Your task to perform on an android device: empty trash in the gmail app Image 0: 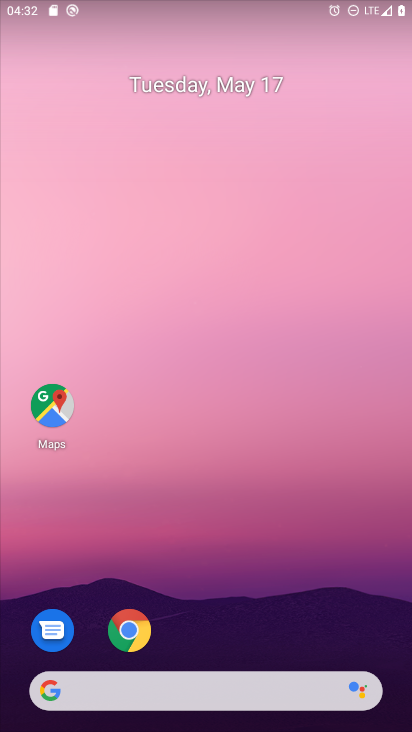
Step 0: drag from (219, 644) to (296, 116)
Your task to perform on an android device: empty trash in the gmail app Image 1: 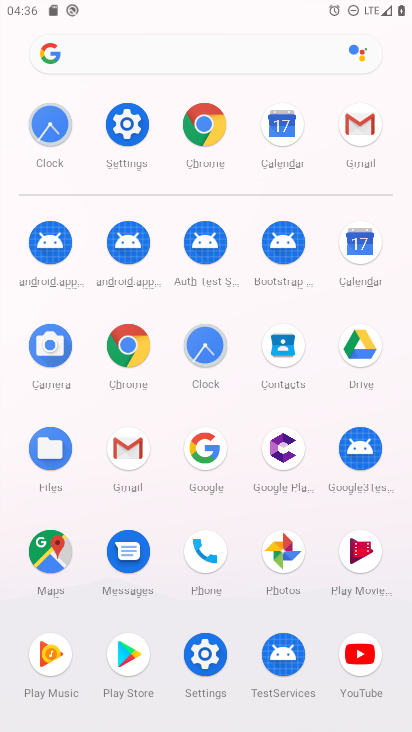
Step 1: click (134, 456)
Your task to perform on an android device: empty trash in the gmail app Image 2: 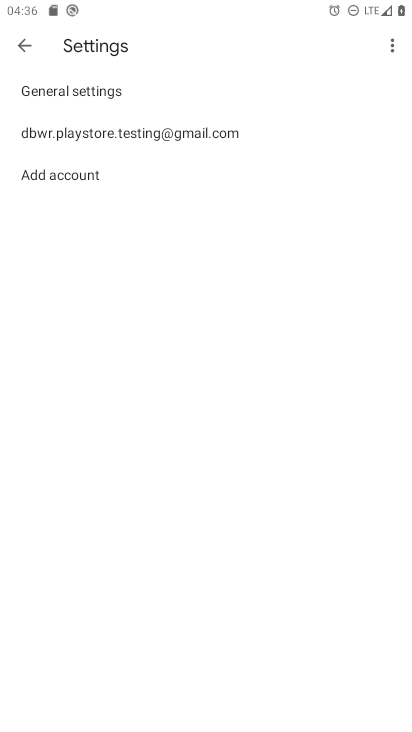
Step 2: click (22, 54)
Your task to perform on an android device: empty trash in the gmail app Image 3: 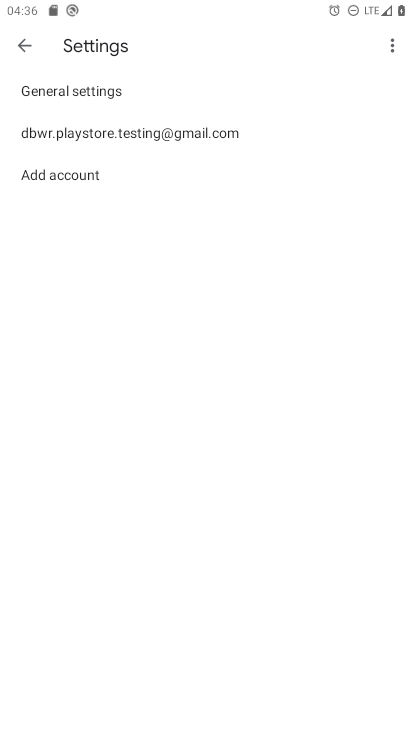
Step 3: click (21, 42)
Your task to perform on an android device: empty trash in the gmail app Image 4: 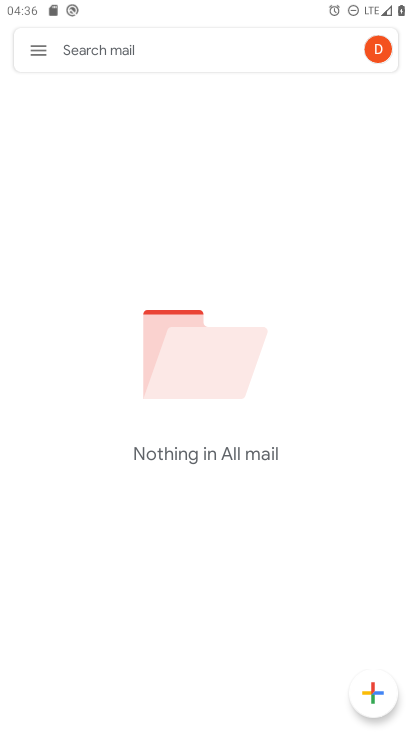
Step 4: click (42, 47)
Your task to perform on an android device: empty trash in the gmail app Image 5: 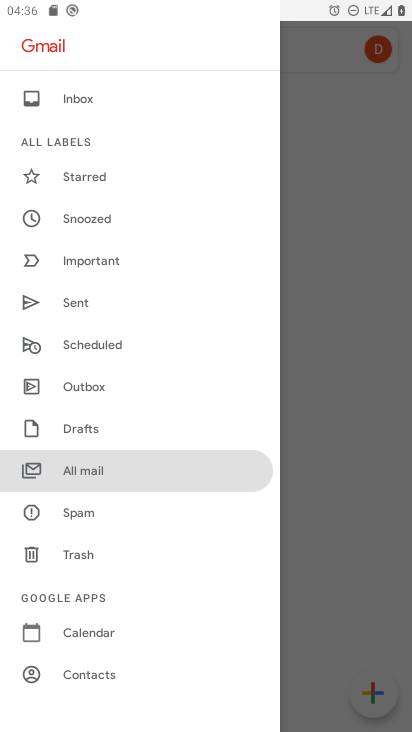
Step 5: click (77, 552)
Your task to perform on an android device: empty trash in the gmail app Image 6: 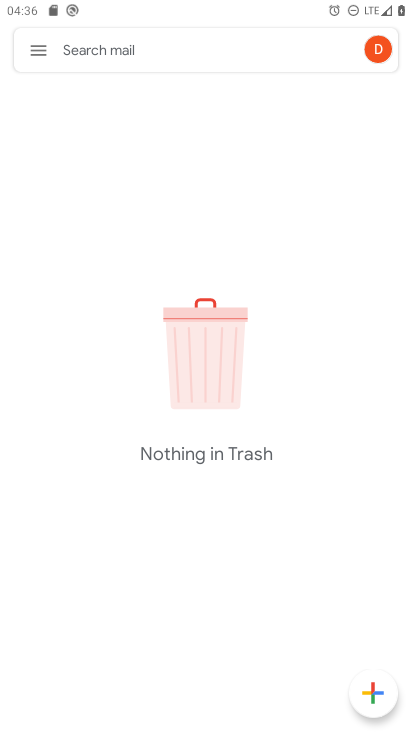
Step 6: task complete